Your task to perform on an android device: Find coffee shops on Maps Image 0: 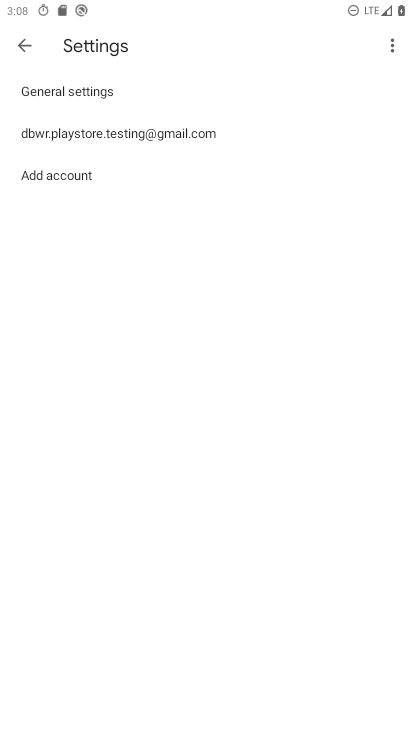
Step 0: click (96, 121)
Your task to perform on an android device: Find coffee shops on Maps Image 1: 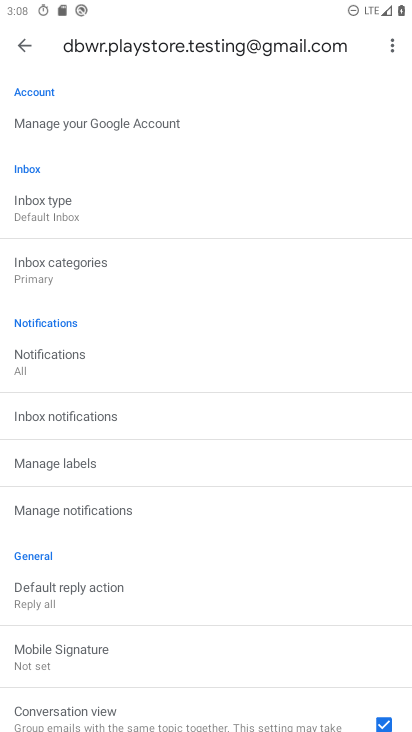
Step 1: drag from (235, 487) to (288, 174)
Your task to perform on an android device: Find coffee shops on Maps Image 2: 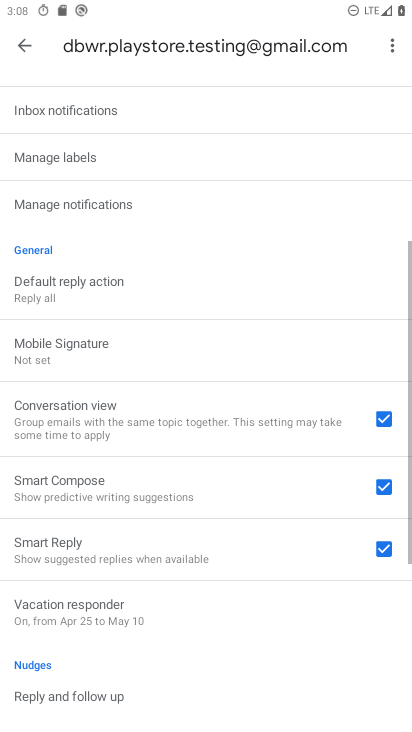
Step 2: press home button
Your task to perform on an android device: Find coffee shops on Maps Image 3: 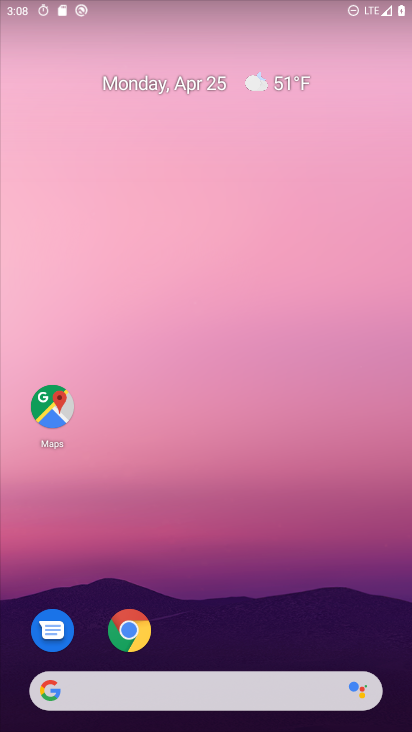
Step 3: drag from (226, 579) to (243, 215)
Your task to perform on an android device: Find coffee shops on Maps Image 4: 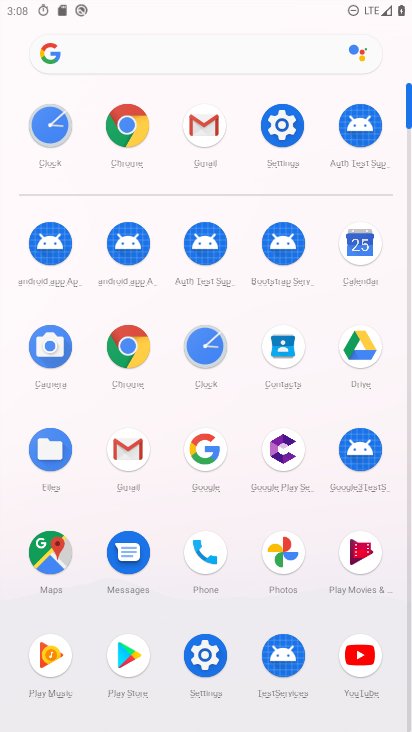
Step 4: click (56, 541)
Your task to perform on an android device: Find coffee shops on Maps Image 5: 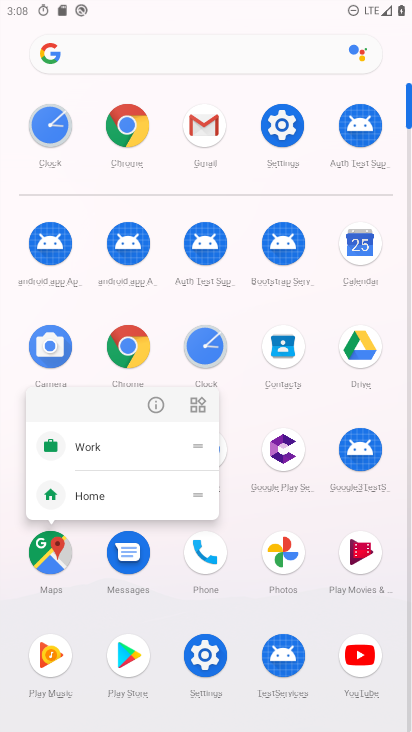
Step 5: click (152, 411)
Your task to perform on an android device: Find coffee shops on Maps Image 6: 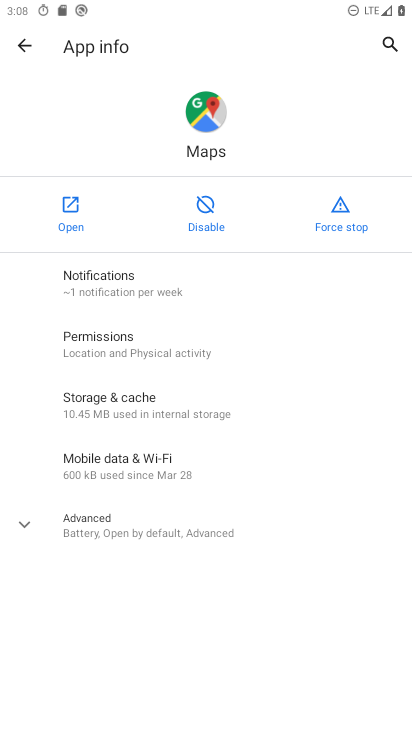
Step 6: click (64, 220)
Your task to perform on an android device: Find coffee shops on Maps Image 7: 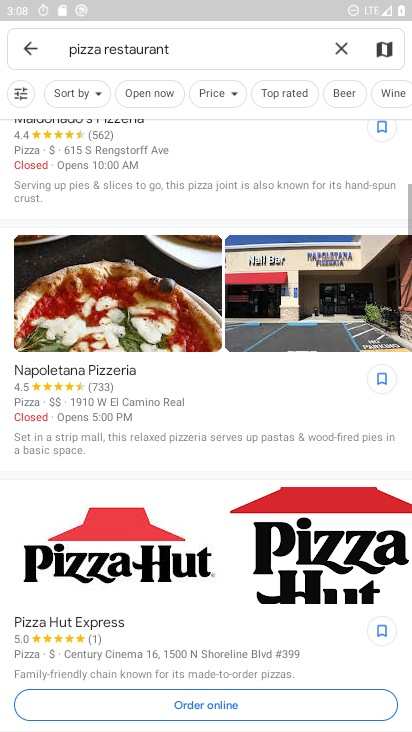
Step 7: click (334, 51)
Your task to perform on an android device: Find coffee shops on Maps Image 8: 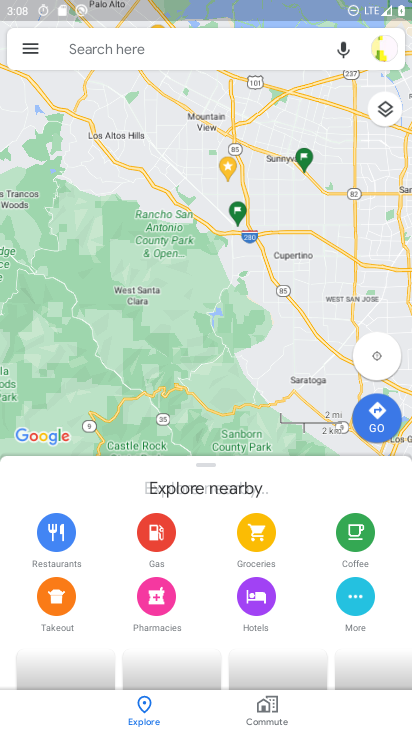
Step 8: drag from (183, 112) to (256, 577)
Your task to perform on an android device: Find coffee shops on Maps Image 9: 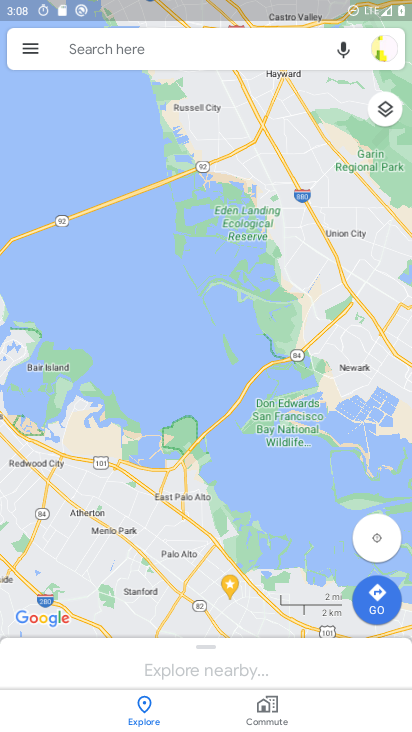
Step 9: click (191, 53)
Your task to perform on an android device: Find coffee shops on Maps Image 10: 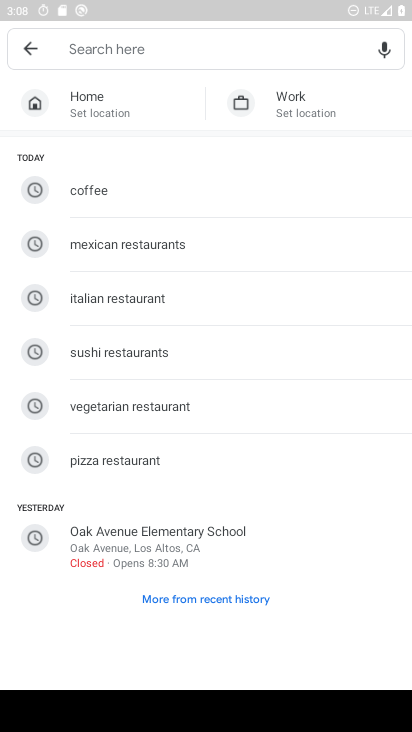
Step 10: click (123, 195)
Your task to perform on an android device: Find coffee shops on Maps Image 11: 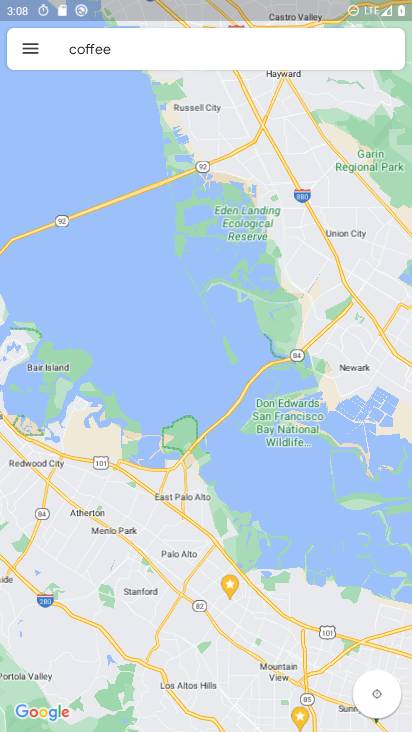
Step 11: task complete